Your task to perform on an android device: toggle notifications settings in the gmail app Image 0: 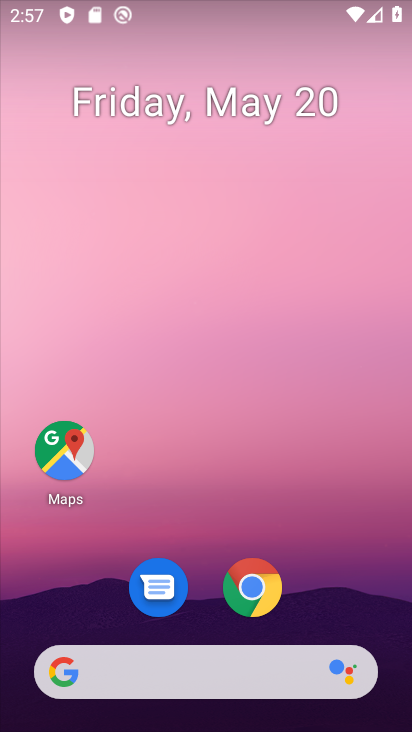
Step 0: drag from (215, 723) to (221, 11)
Your task to perform on an android device: toggle notifications settings in the gmail app Image 1: 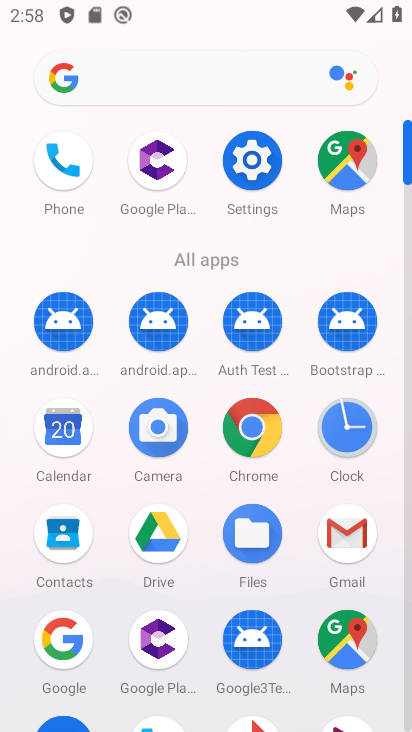
Step 1: click (331, 536)
Your task to perform on an android device: toggle notifications settings in the gmail app Image 2: 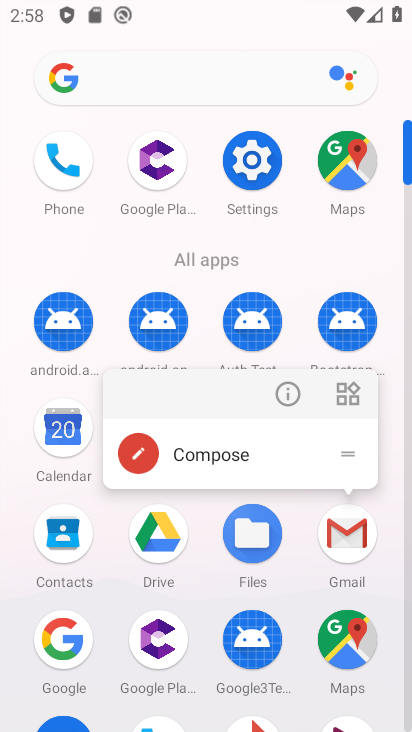
Step 2: click (289, 398)
Your task to perform on an android device: toggle notifications settings in the gmail app Image 3: 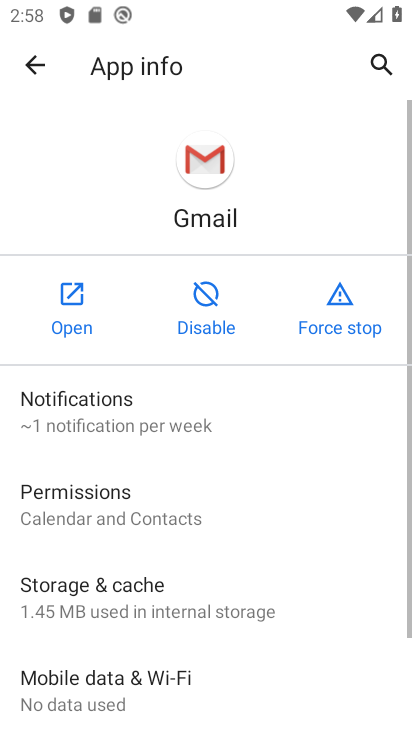
Step 3: click (244, 415)
Your task to perform on an android device: toggle notifications settings in the gmail app Image 4: 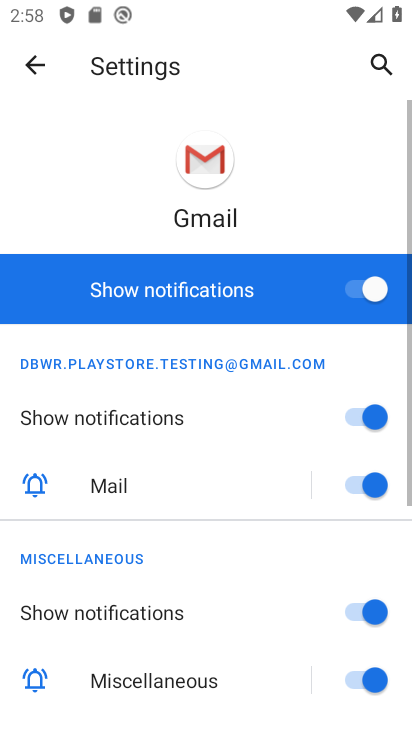
Step 4: click (378, 280)
Your task to perform on an android device: toggle notifications settings in the gmail app Image 5: 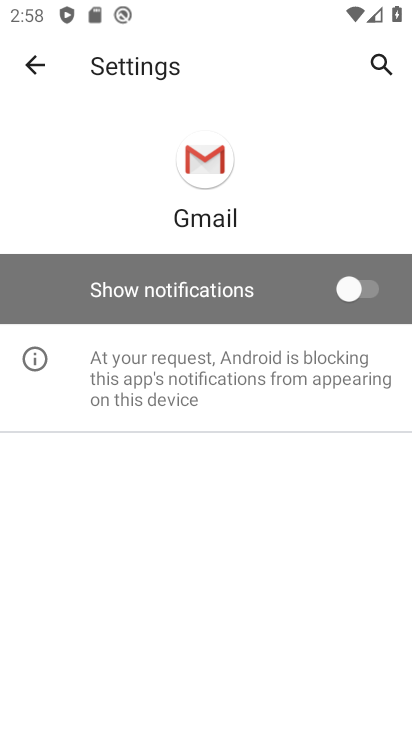
Step 5: task complete